Your task to perform on an android device: Open the phone app and click the voicemail tab. Image 0: 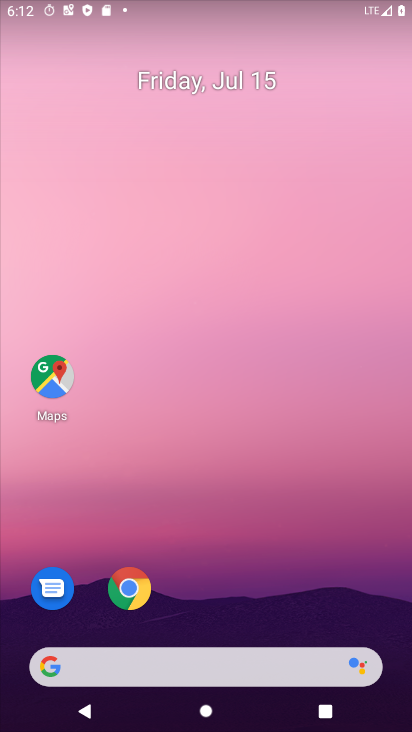
Step 0: drag from (222, 633) to (289, 9)
Your task to perform on an android device: Open the phone app and click the voicemail tab. Image 1: 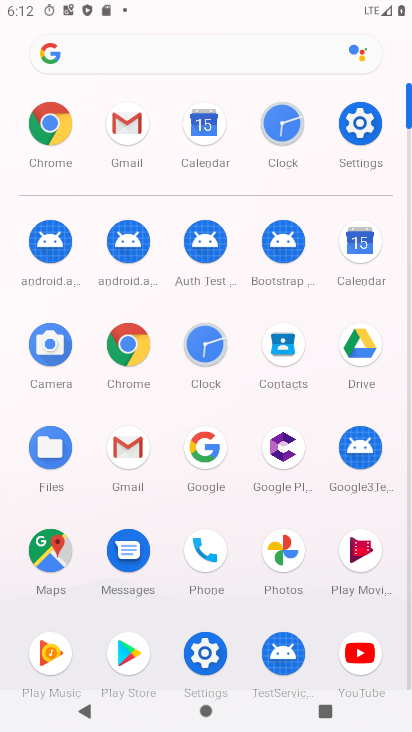
Step 1: click (215, 549)
Your task to perform on an android device: Open the phone app and click the voicemail tab. Image 2: 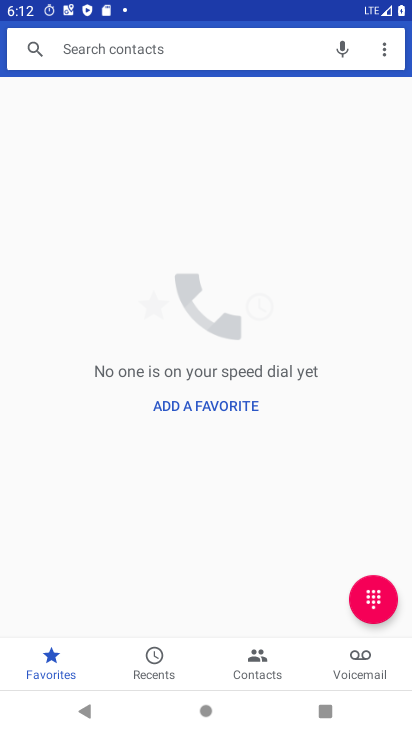
Step 2: click (363, 658)
Your task to perform on an android device: Open the phone app and click the voicemail tab. Image 3: 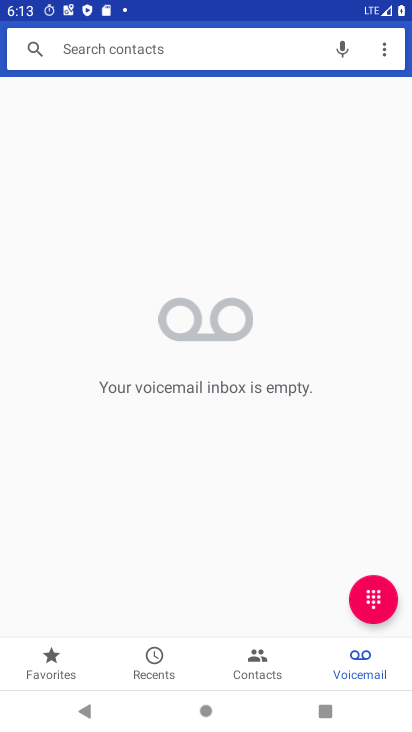
Step 3: task complete